Your task to perform on an android device: Add "razer blade" to the cart on walmart.com, then select checkout. Image 0: 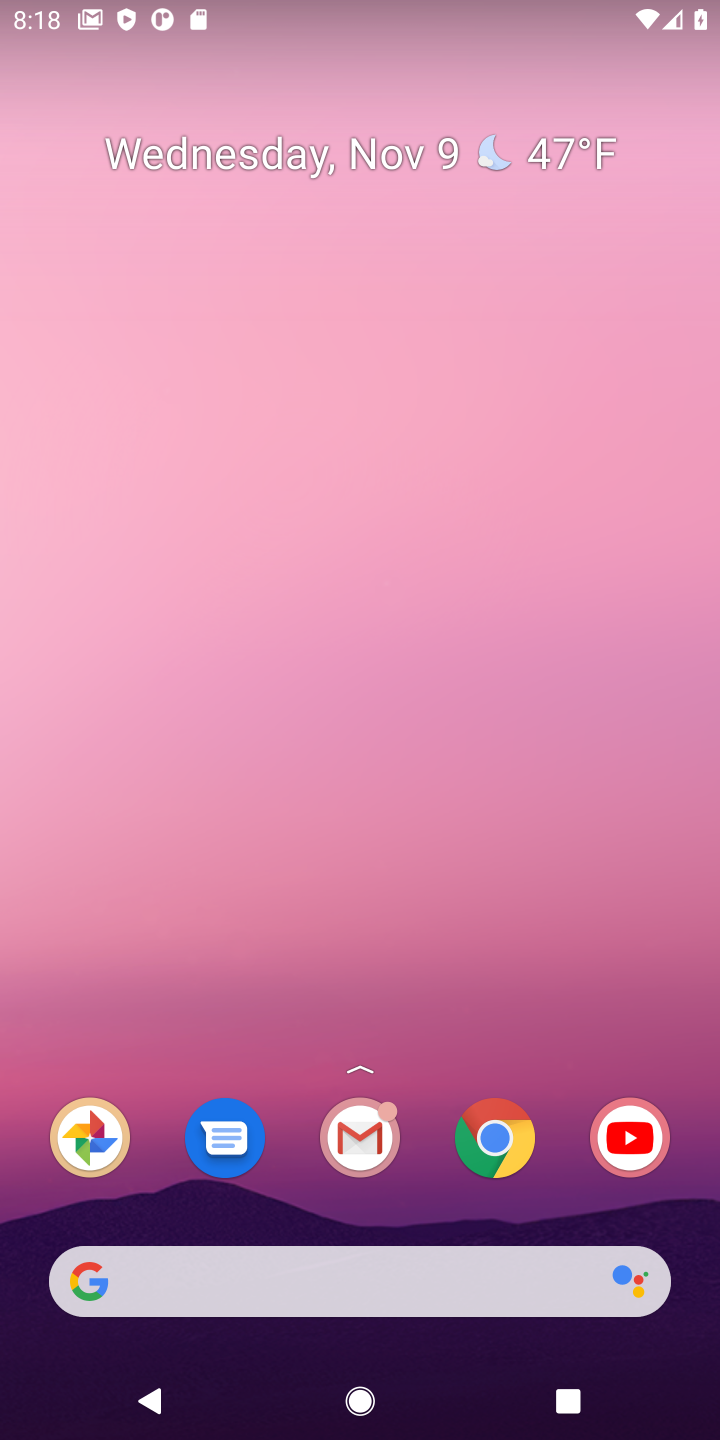
Step 0: drag from (416, 1235) to (314, 173)
Your task to perform on an android device: Add "razer blade" to the cart on walmart.com, then select checkout. Image 1: 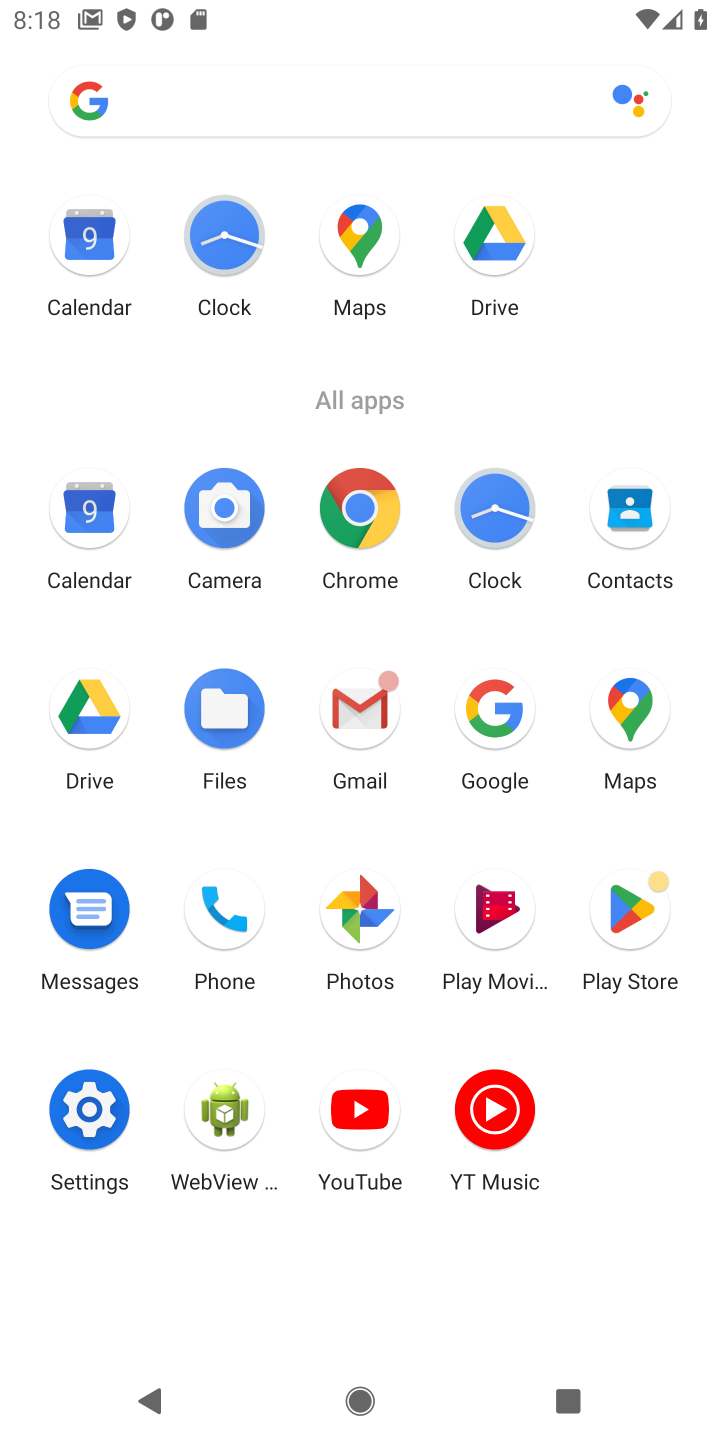
Step 1: click (377, 497)
Your task to perform on an android device: Add "razer blade" to the cart on walmart.com, then select checkout. Image 2: 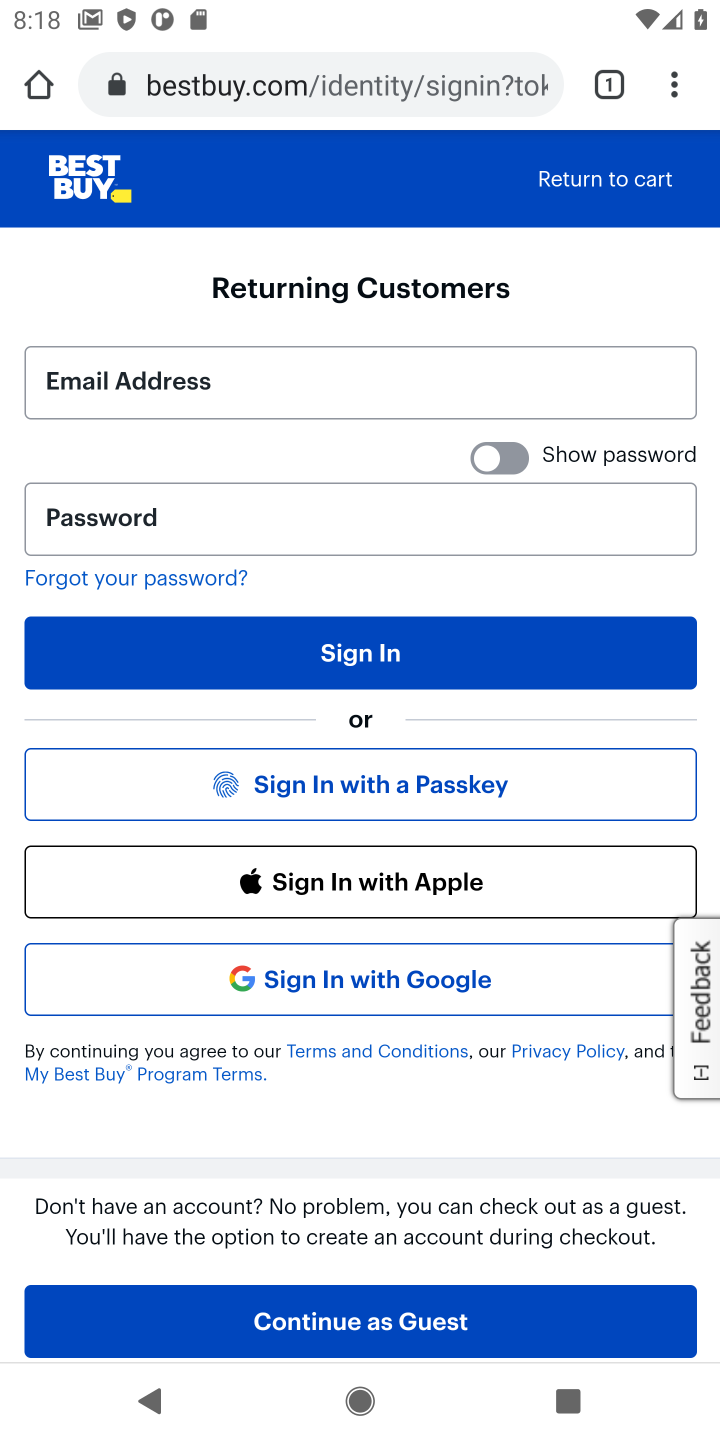
Step 2: click (279, 89)
Your task to perform on an android device: Add "razer blade" to the cart on walmart.com, then select checkout. Image 3: 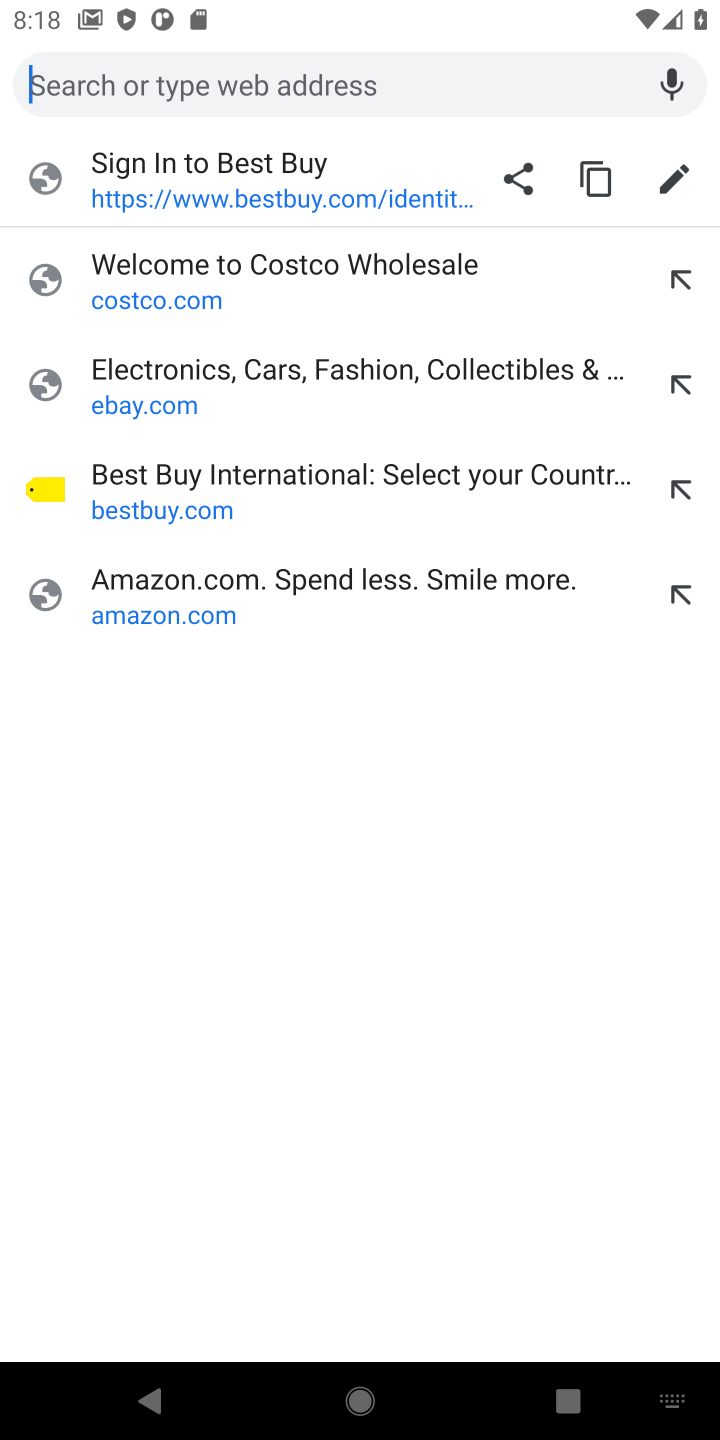
Step 3: type "walmart.com"
Your task to perform on an android device: Add "razer blade" to the cart on walmart.com, then select checkout. Image 4: 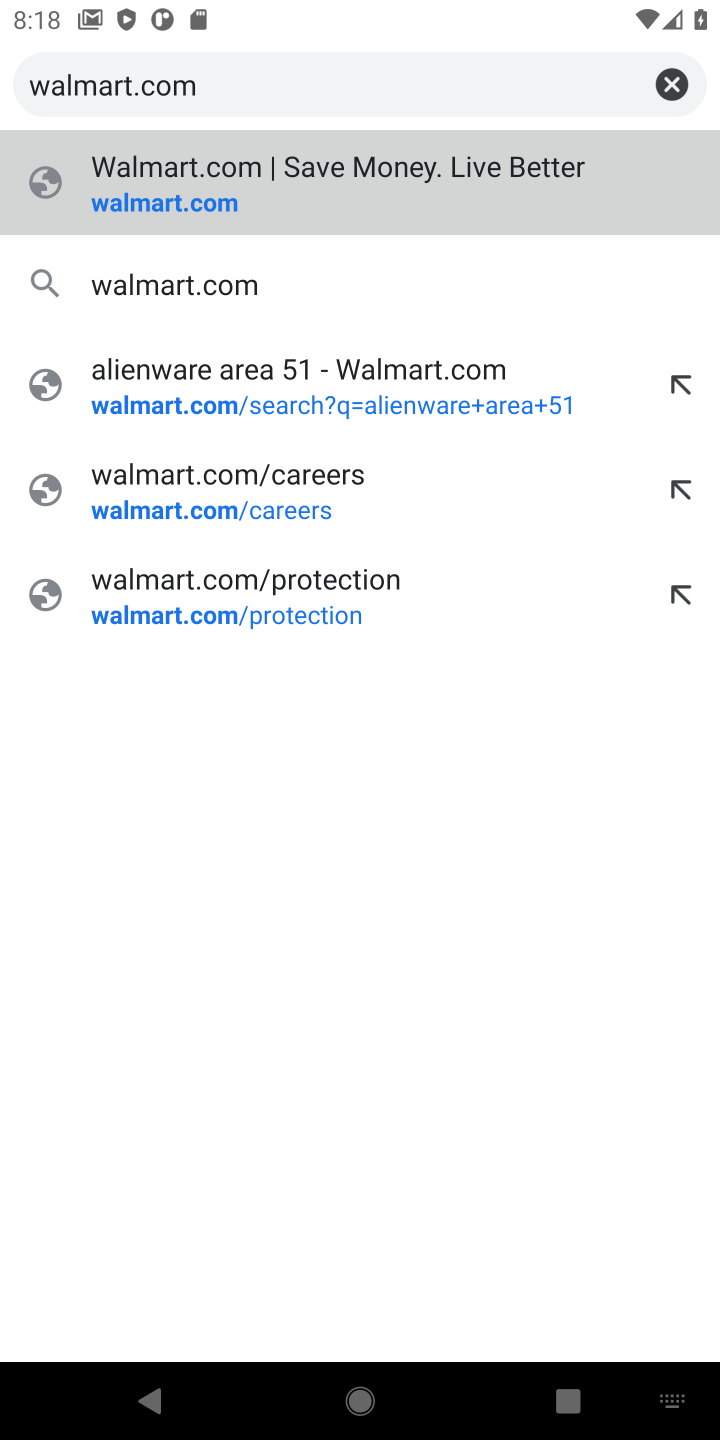
Step 4: press enter
Your task to perform on an android device: Add "razer blade" to the cart on walmart.com, then select checkout. Image 5: 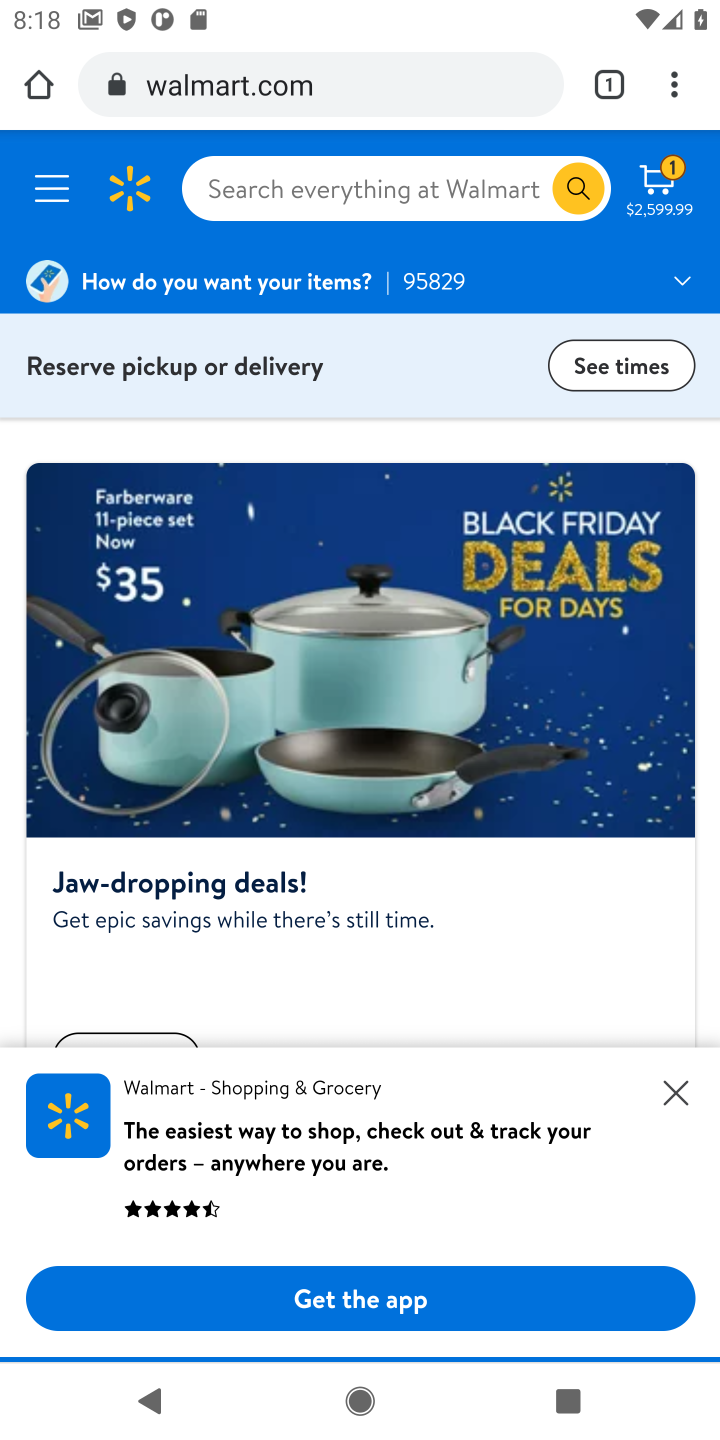
Step 5: click (397, 184)
Your task to perform on an android device: Add "razer blade" to the cart on walmart.com, then select checkout. Image 6: 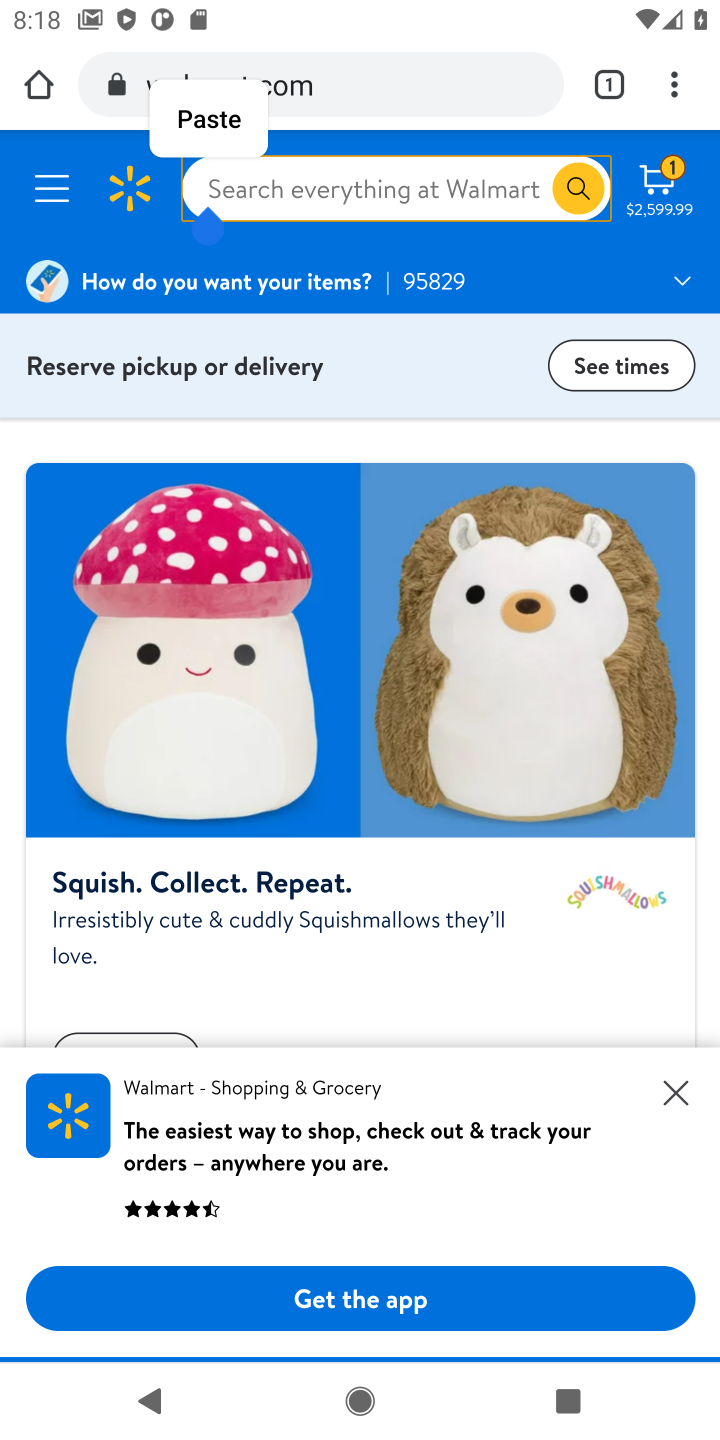
Step 6: type "razer blade"
Your task to perform on an android device: Add "razer blade" to the cart on walmart.com, then select checkout. Image 7: 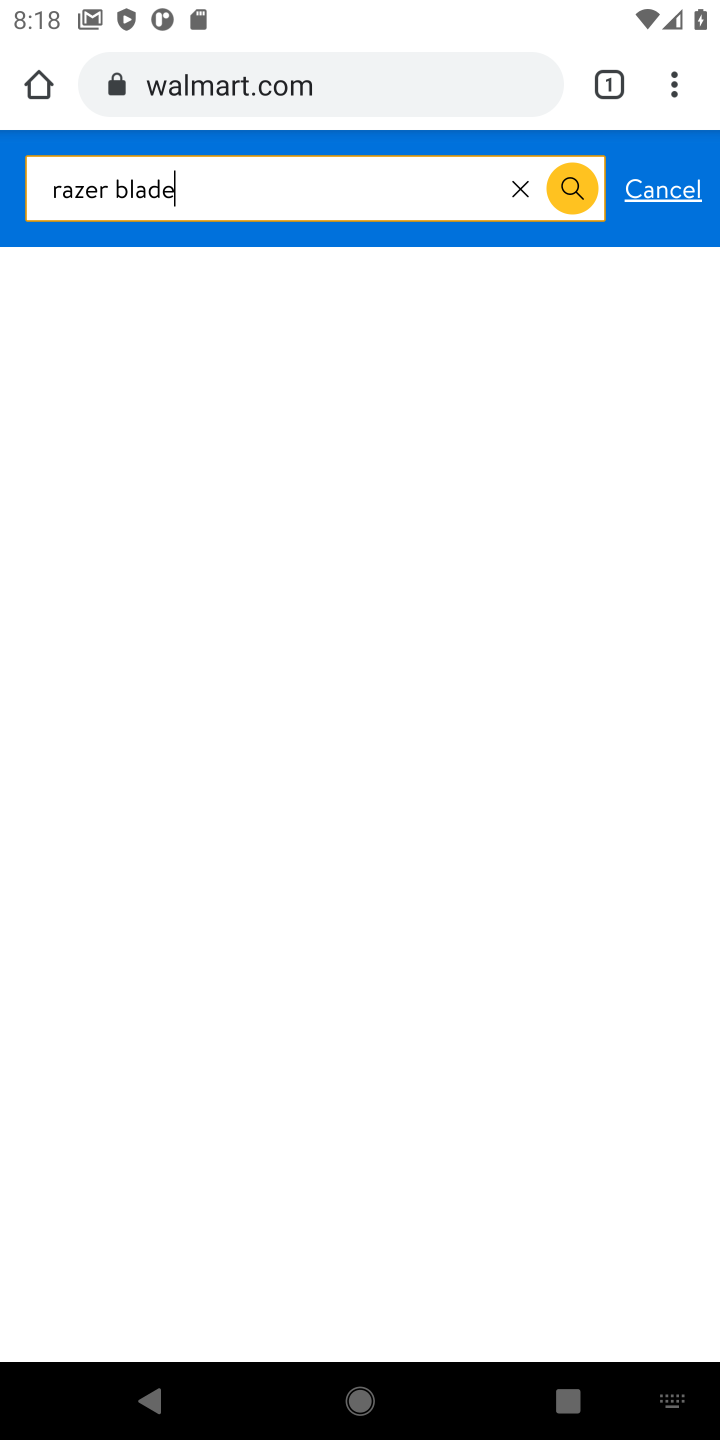
Step 7: press enter
Your task to perform on an android device: Add "razer blade" to the cart on walmart.com, then select checkout. Image 8: 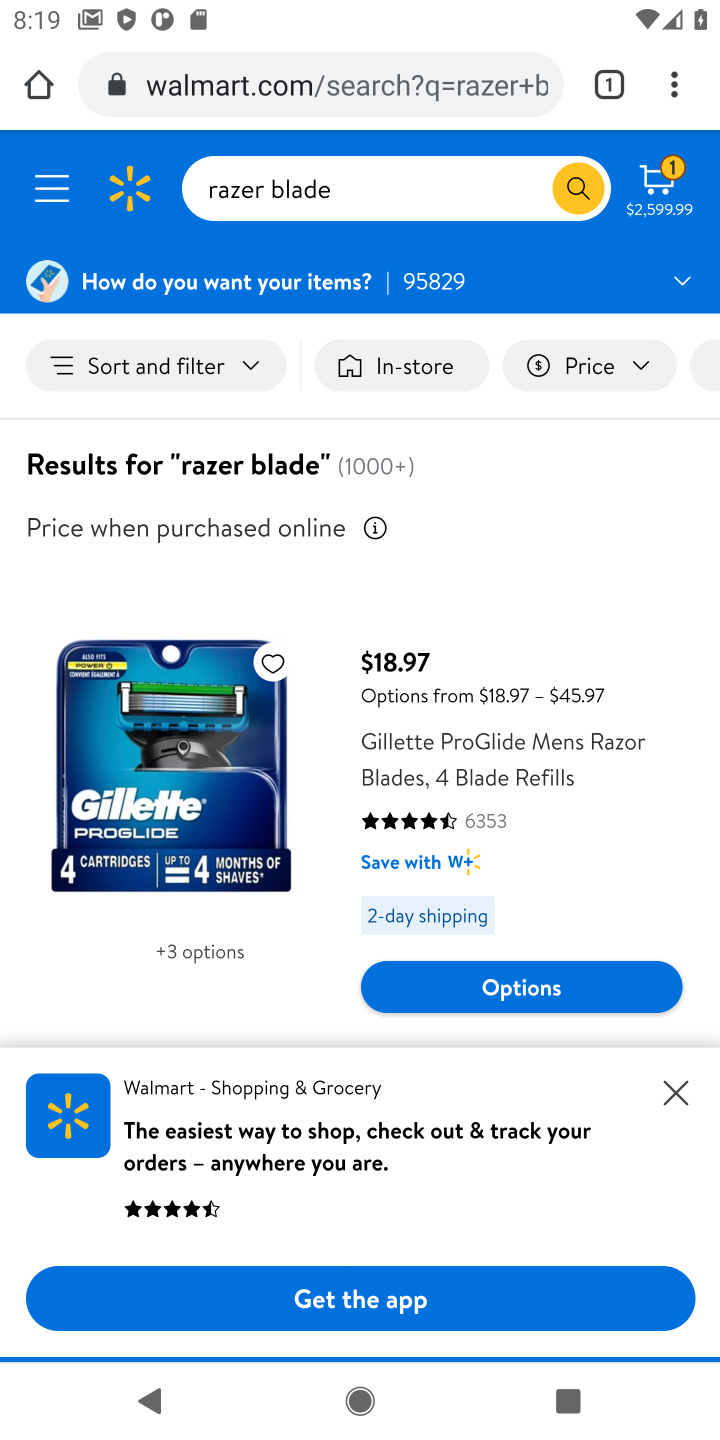
Step 8: task complete